Your task to perform on an android device: turn on the 24-hour format for clock Image 0: 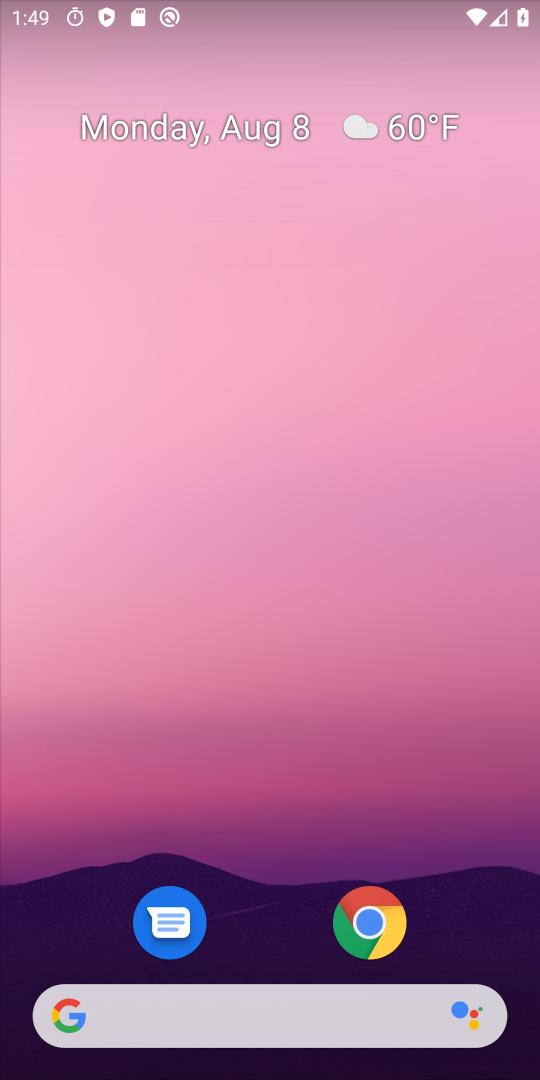
Step 0: drag from (266, 868) to (257, 59)
Your task to perform on an android device: turn on the 24-hour format for clock Image 1: 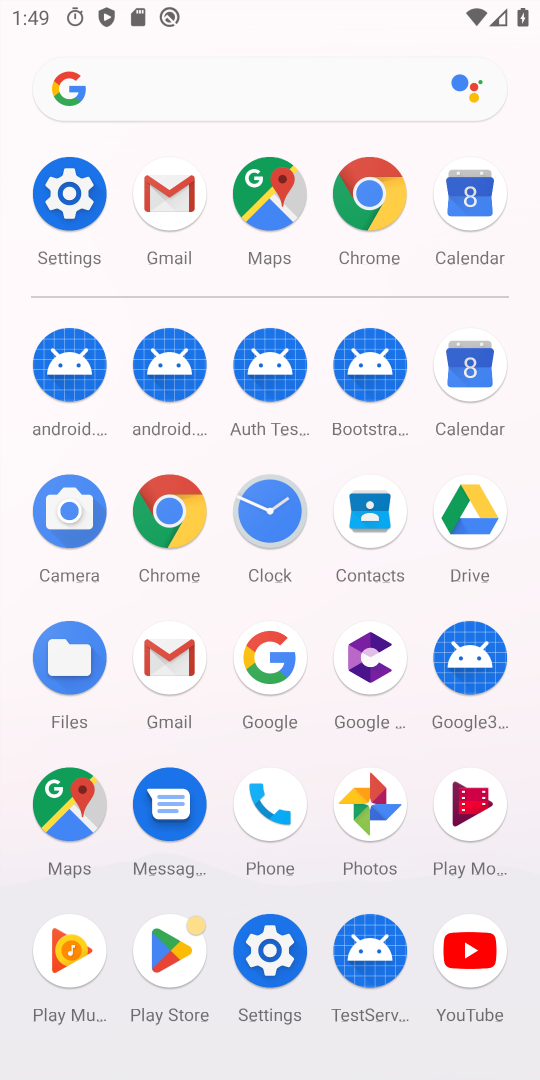
Step 1: click (279, 495)
Your task to perform on an android device: turn on the 24-hour format for clock Image 2: 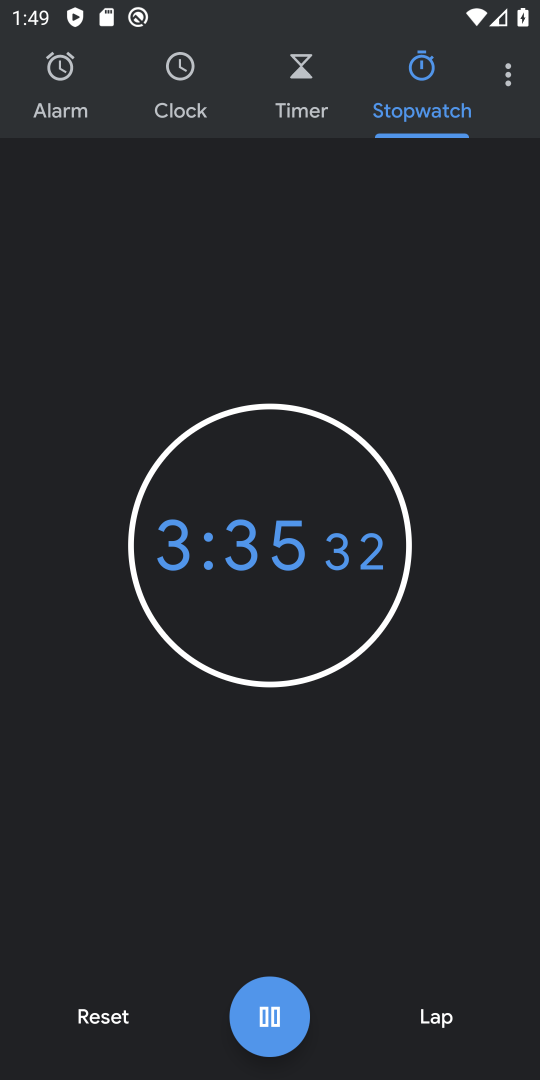
Step 2: click (286, 1016)
Your task to perform on an android device: turn on the 24-hour format for clock Image 3: 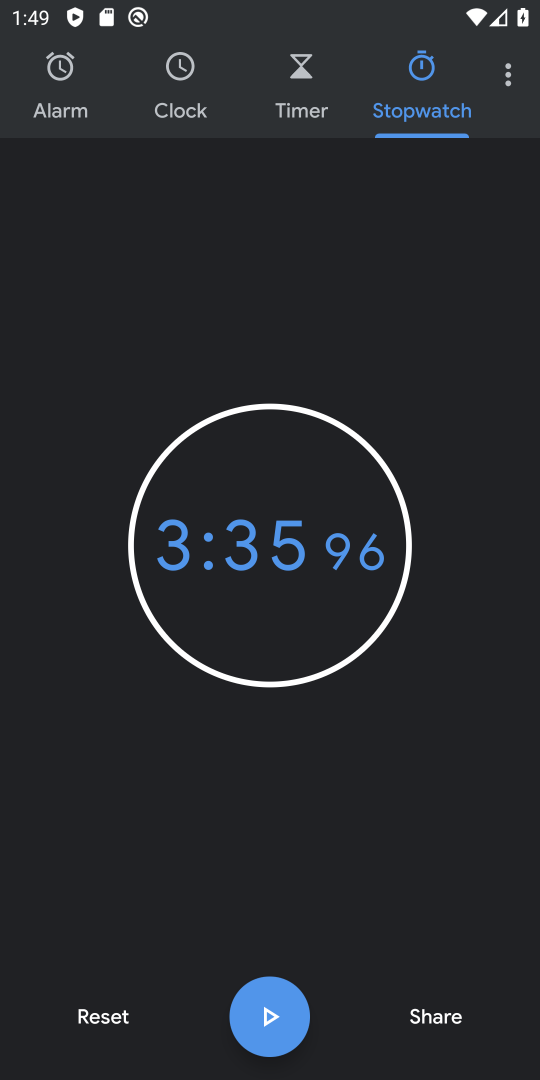
Step 3: click (505, 76)
Your task to perform on an android device: turn on the 24-hour format for clock Image 4: 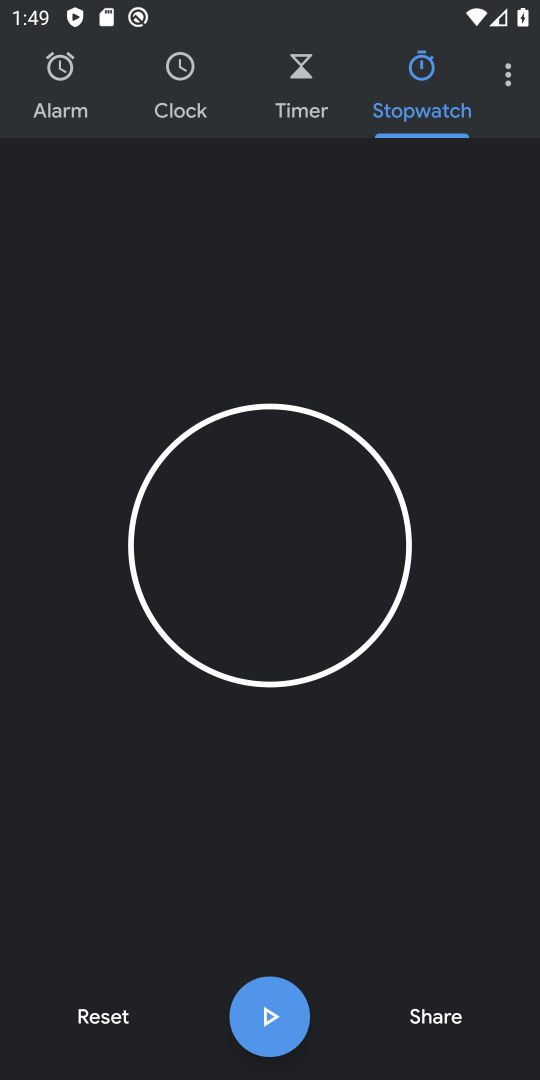
Step 4: click (509, 84)
Your task to perform on an android device: turn on the 24-hour format for clock Image 5: 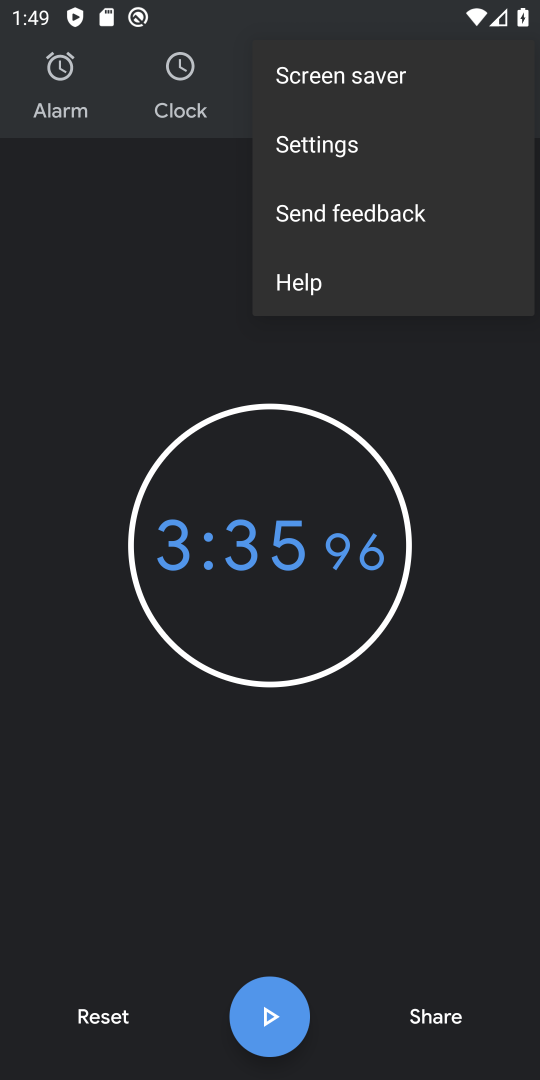
Step 5: click (365, 144)
Your task to perform on an android device: turn on the 24-hour format for clock Image 6: 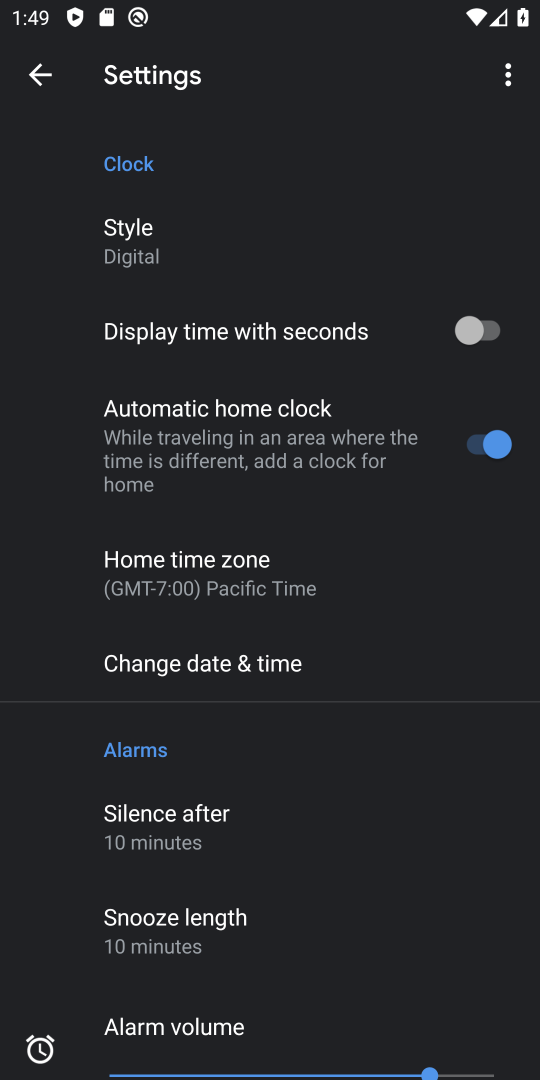
Step 6: click (247, 664)
Your task to perform on an android device: turn on the 24-hour format for clock Image 7: 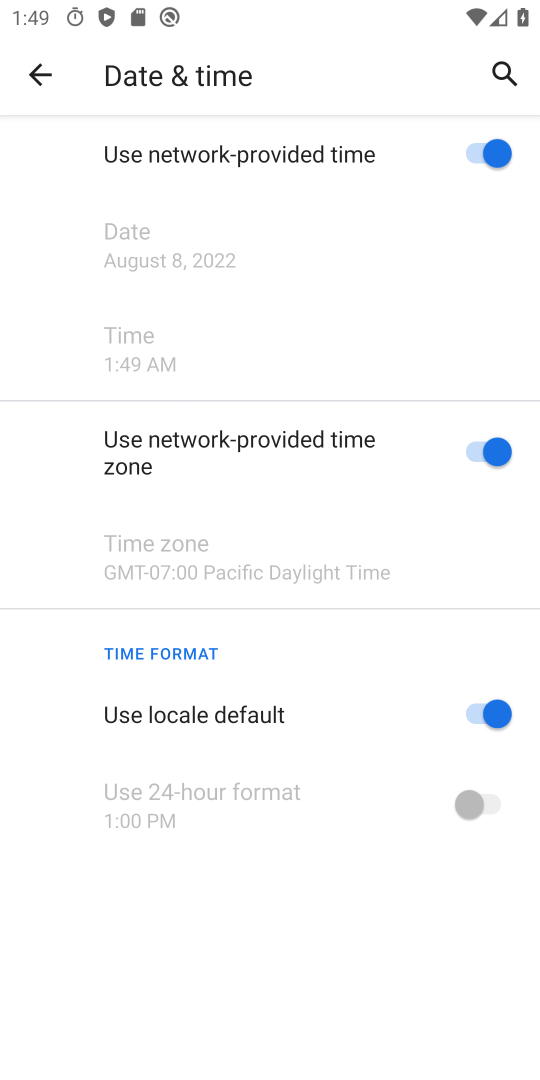
Step 7: click (490, 730)
Your task to perform on an android device: turn on the 24-hour format for clock Image 8: 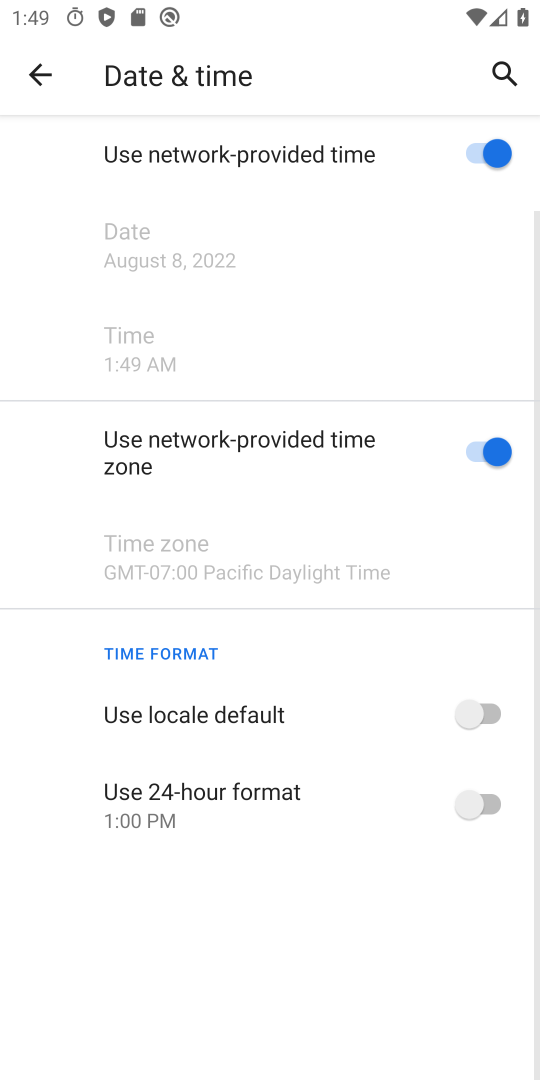
Step 8: click (526, 821)
Your task to perform on an android device: turn on the 24-hour format for clock Image 9: 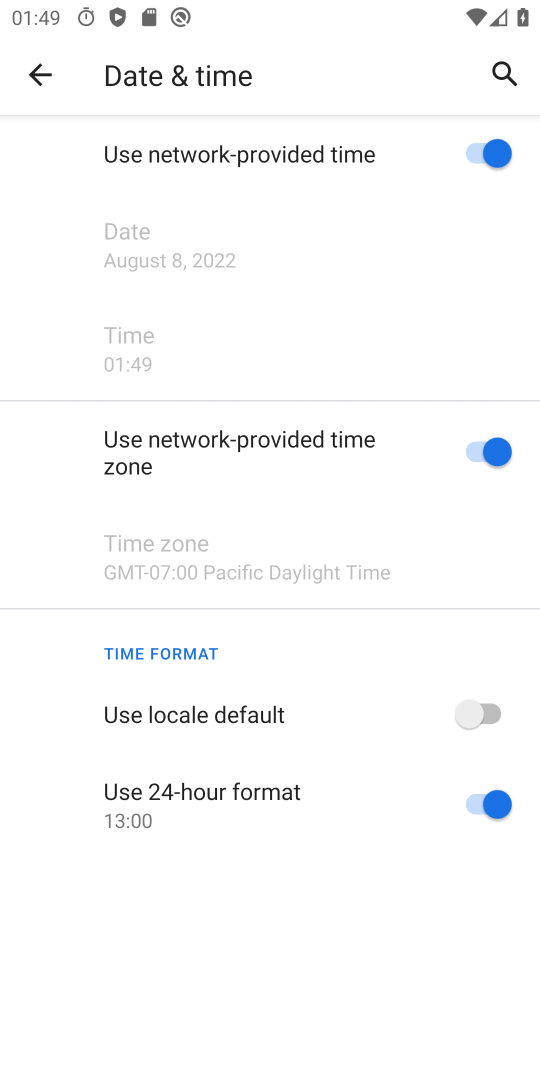
Step 9: task complete